Your task to perform on an android device: turn pop-ups on in chrome Image 0: 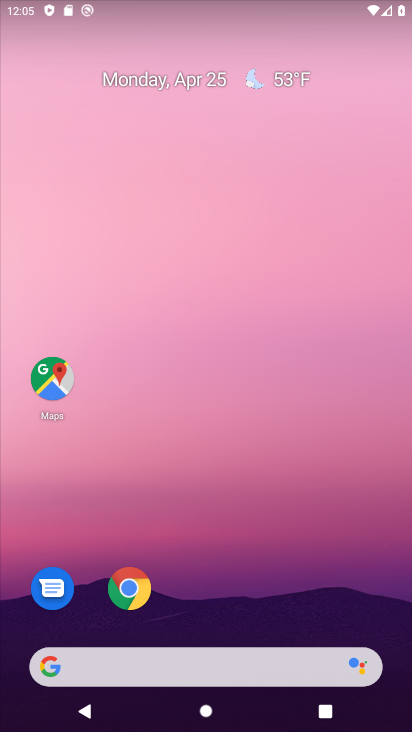
Step 0: drag from (250, 606) to (221, 193)
Your task to perform on an android device: turn pop-ups on in chrome Image 1: 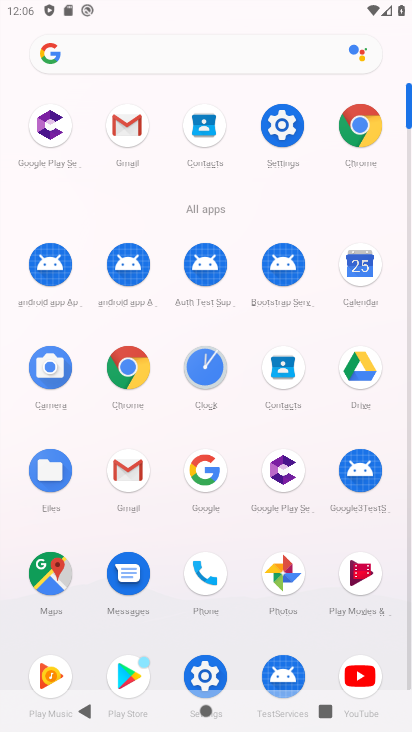
Step 1: click (366, 124)
Your task to perform on an android device: turn pop-ups on in chrome Image 2: 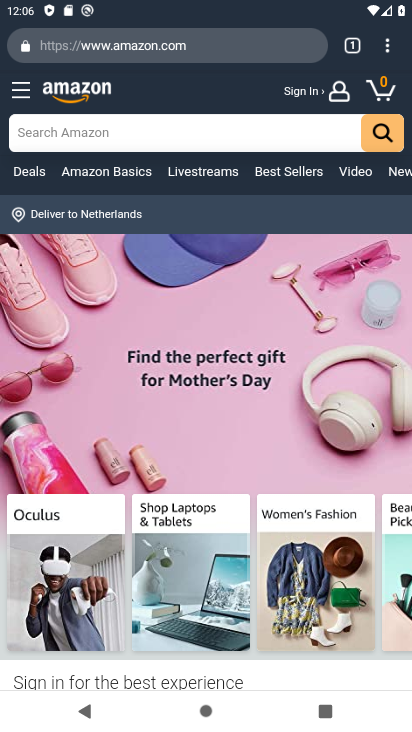
Step 2: click (388, 63)
Your task to perform on an android device: turn pop-ups on in chrome Image 3: 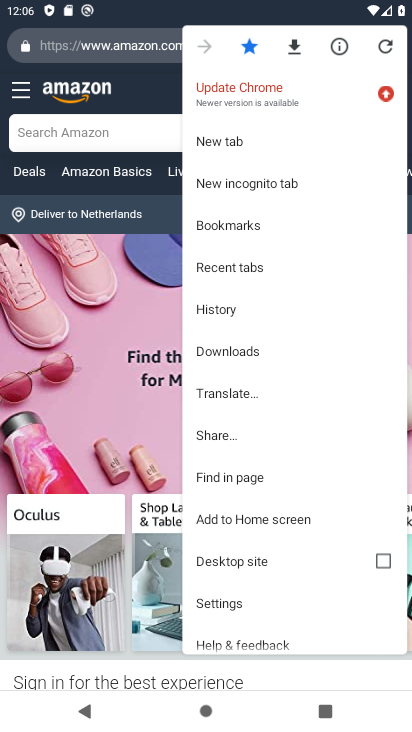
Step 3: click (278, 608)
Your task to perform on an android device: turn pop-ups on in chrome Image 4: 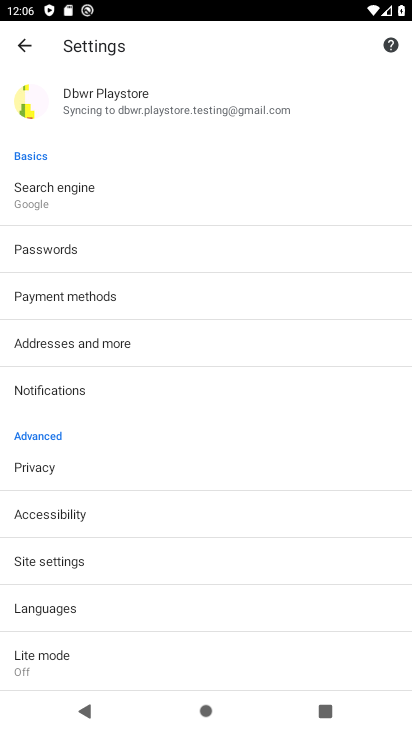
Step 4: click (270, 568)
Your task to perform on an android device: turn pop-ups on in chrome Image 5: 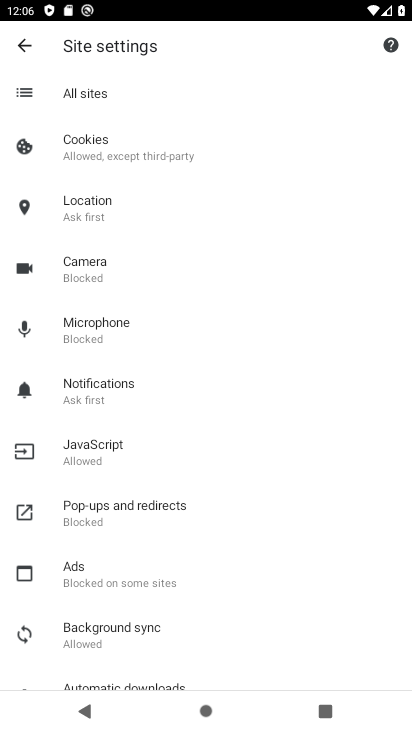
Step 5: click (269, 524)
Your task to perform on an android device: turn pop-ups on in chrome Image 6: 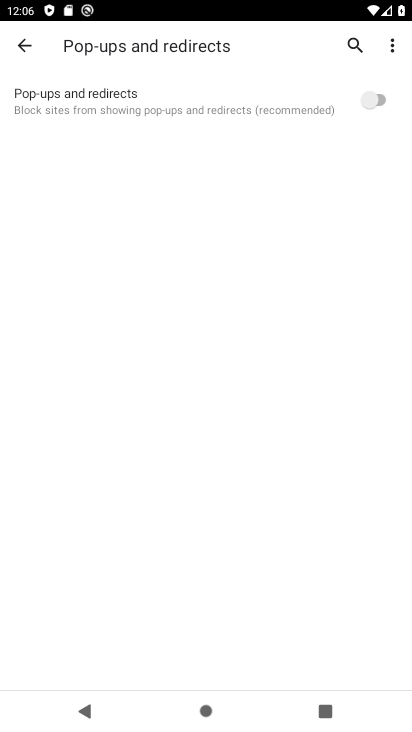
Step 6: click (379, 95)
Your task to perform on an android device: turn pop-ups on in chrome Image 7: 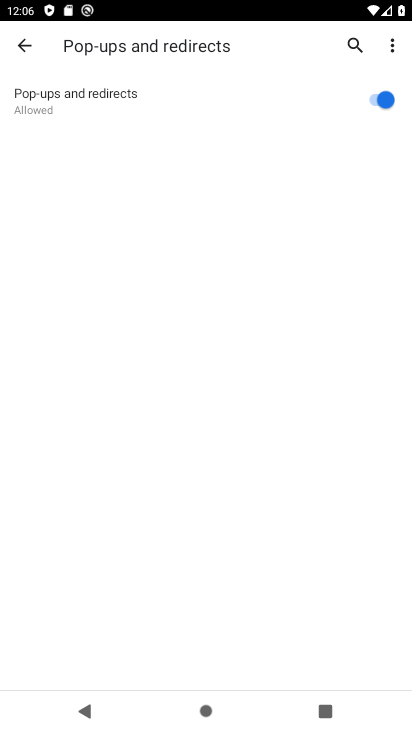
Step 7: task complete